Your task to perform on an android device: open device folders in google photos Image 0: 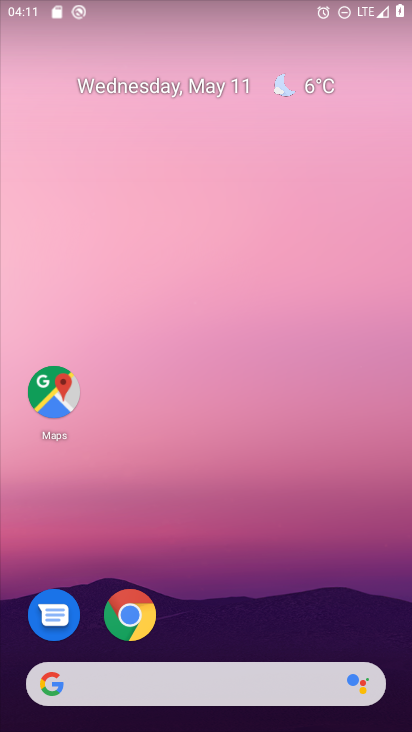
Step 0: drag from (320, 535) to (274, 4)
Your task to perform on an android device: open device folders in google photos Image 1: 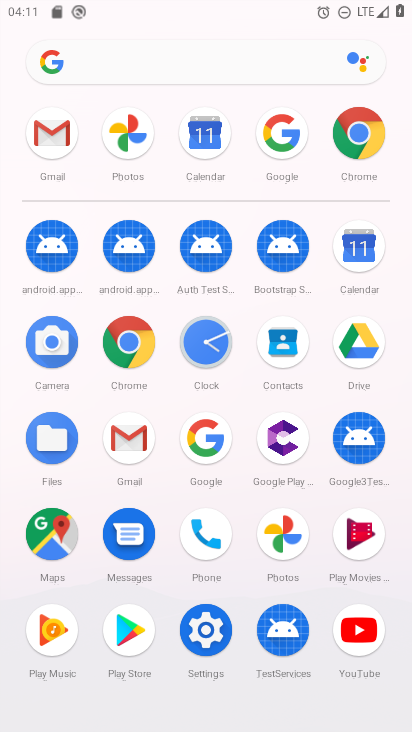
Step 1: click (126, 150)
Your task to perform on an android device: open device folders in google photos Image 2: 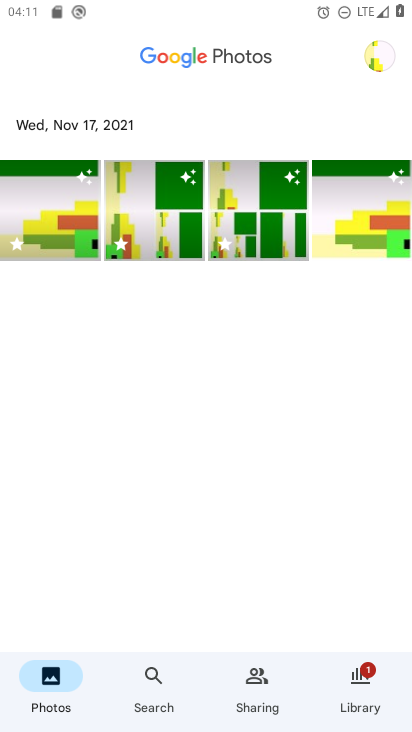
Step 2: click (369, 54)
Your task to perform on an android device: open device folders in google photos Image 3: 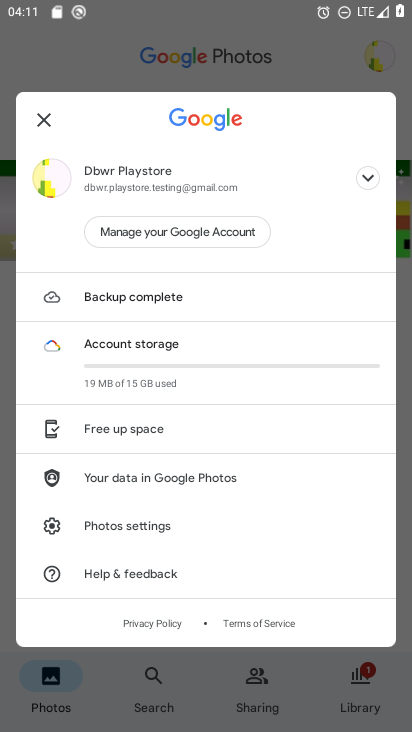
Step 3: task complete